Your task to perform on an android device: Open Yahoo.com Image 0: 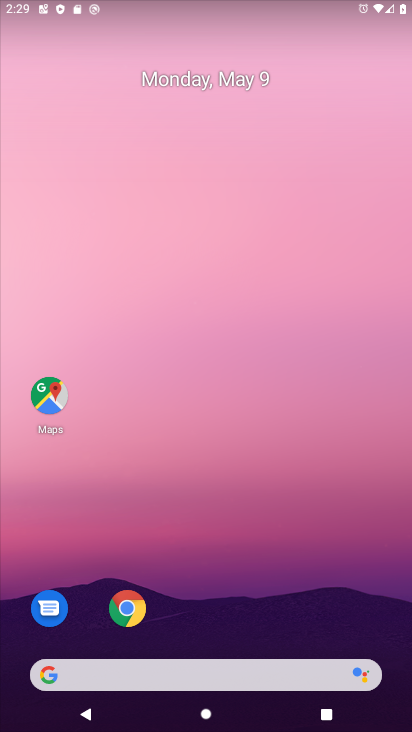
Step 0: click (127, 620)
Your task to perform on an android device: Open Yahoo.com Image 1: 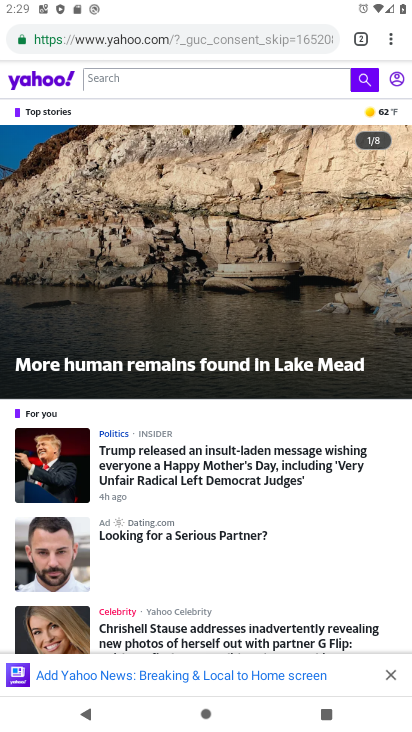
Step 1: task complete